Your task to perform on an android device: star an email in the gmail app Image 0: 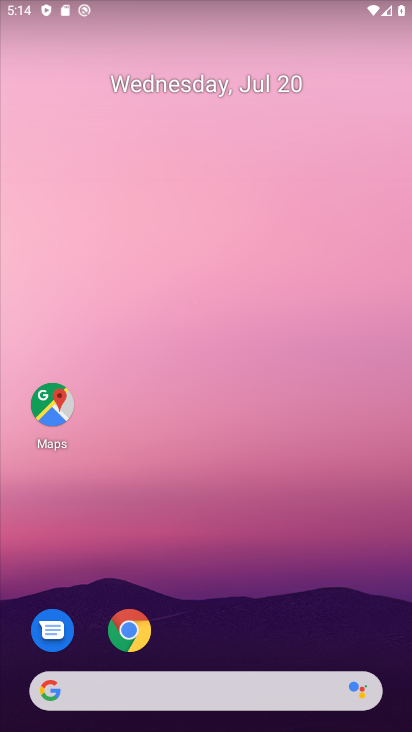
Step 0: drag from (283, 670) to (392, 52)
Your task to perform on an android device: star an email in the gmail app Image 1: 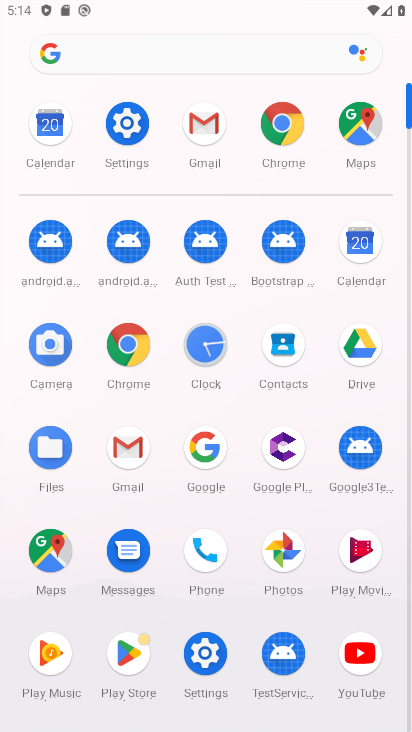
Step 1: click (137, 453)
Your task to perform on an android device: star an email in the gmail app Image 2: 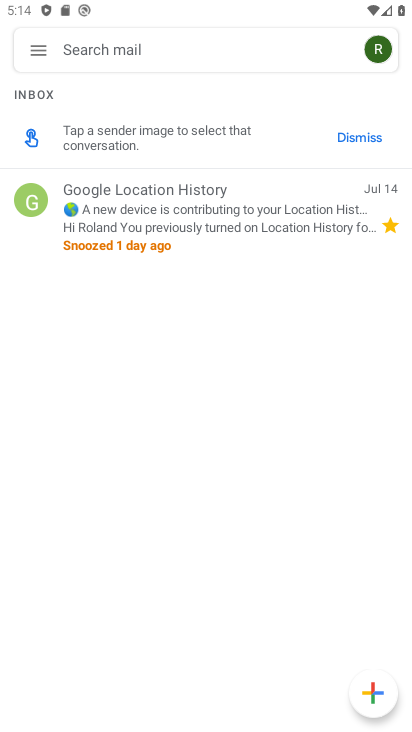
Step 2: click (42, 49)
Your task to perform on an android device: star an email in the gmail app Image 3: 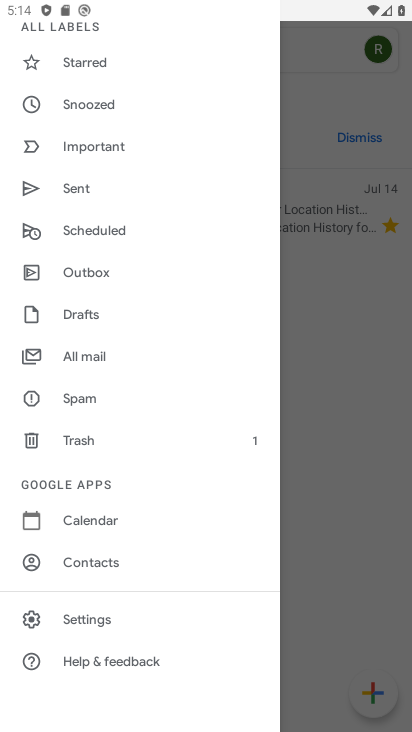
Step 3: click (110, 61)
Your task to perform on an android device: star an email in the gmail app Image 4: 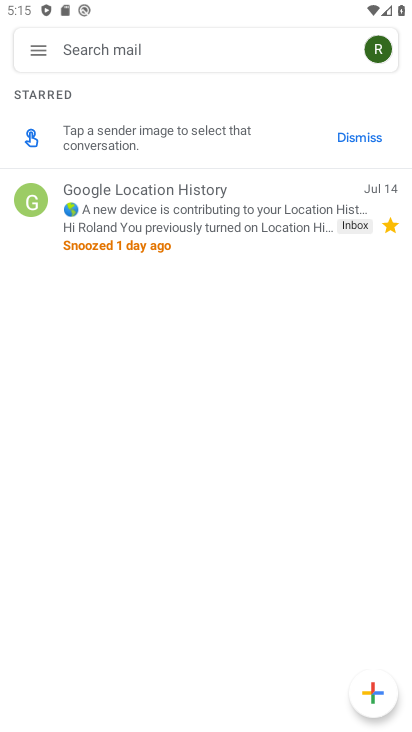
Step 4: task complete